Your task to perform on an android device: turn notification dots on Image 0: 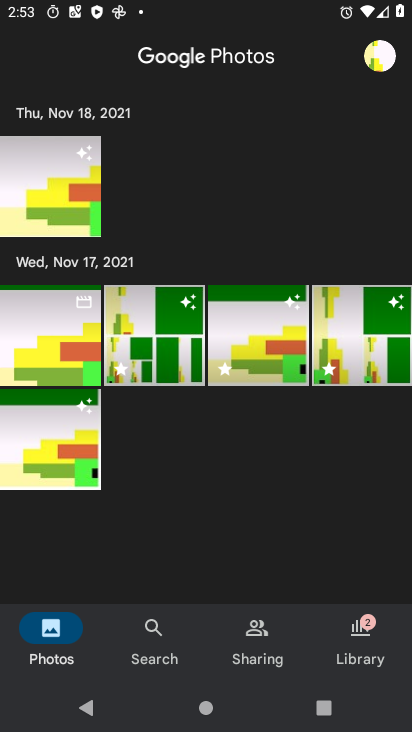
Step 0: press home button
Your task to perform on an android device: turn notification dots on Image 1: 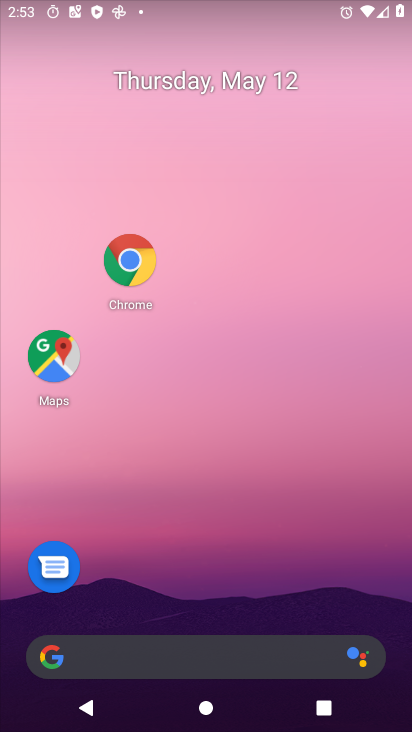
Step 1: drag from (155, 635) to (160, 202)
Your task to perform on an android device: turn notification dots on Image 2: 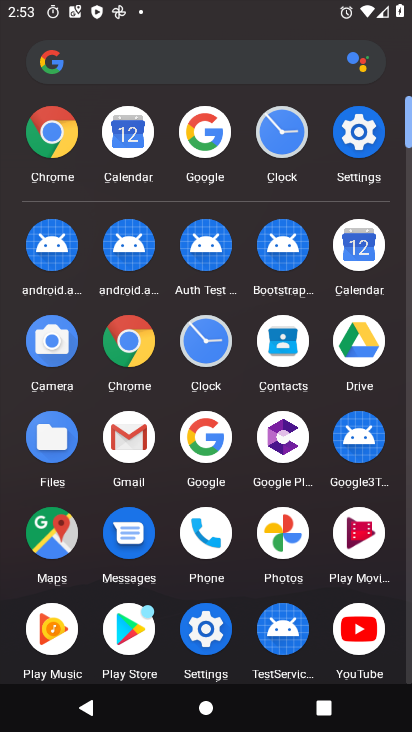
Step 2: click (359, 134)
Your task to perform on an android device: turn notification dots on Image 3: 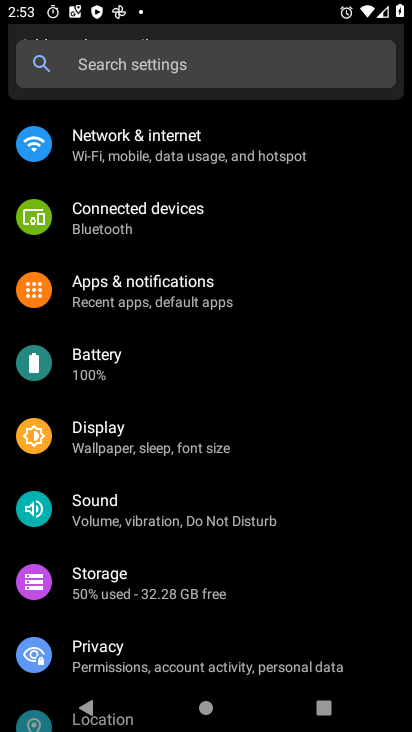
Step 3: drag from (174, 662) to (157, 416)
Your task to perform on an android device: turn notification dots on Image 4: 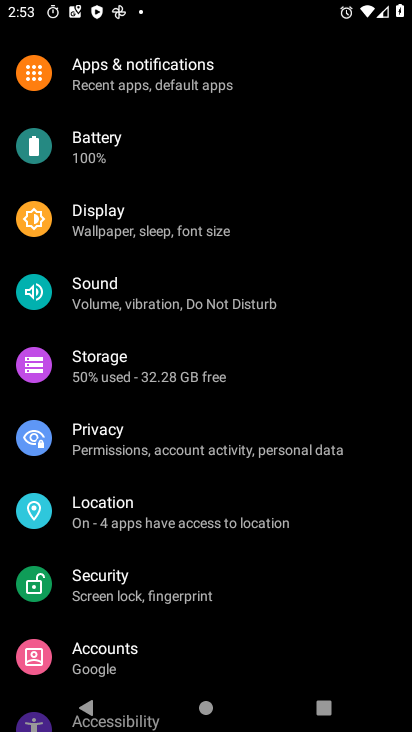
Step 4: click (160, 91)
Your task to perform on an android device: turn notification dots on Image 5: 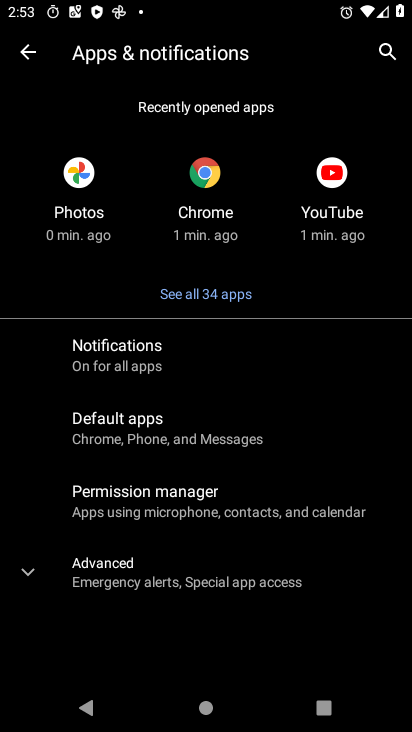
Step 5: click (182, 583)
Your task to perform on an android device: turn notification dots on Image 6: 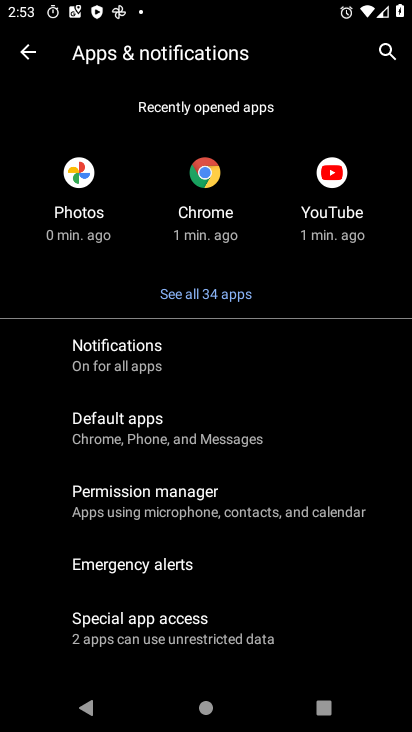
Step 6: click (126, 364)
Your task to perform on an android device: turn notification dots on Image 7: 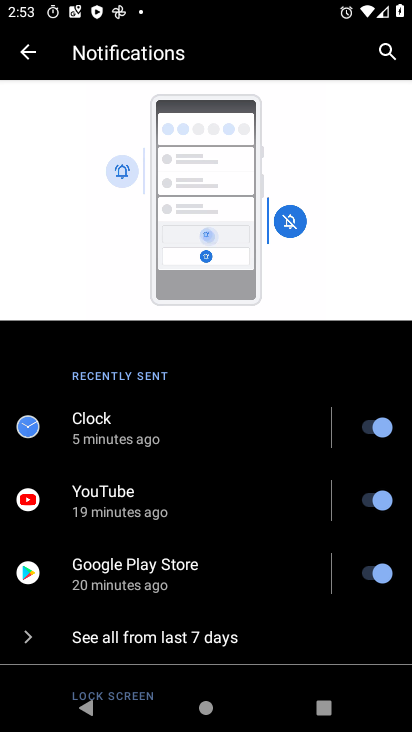
Step 7: drag from (137, 675) to (100, 359)
Your task to perform on an android device: turn notification dots on Image 8: 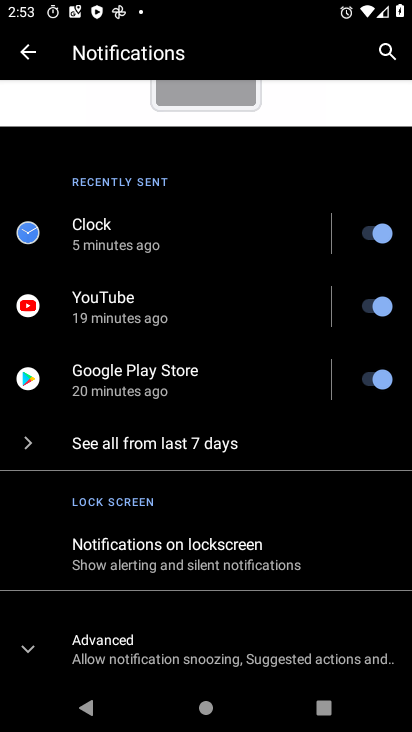
Step 8: click (130, 657)
Your task to perform on an android device: turn notification dots on Image 9: 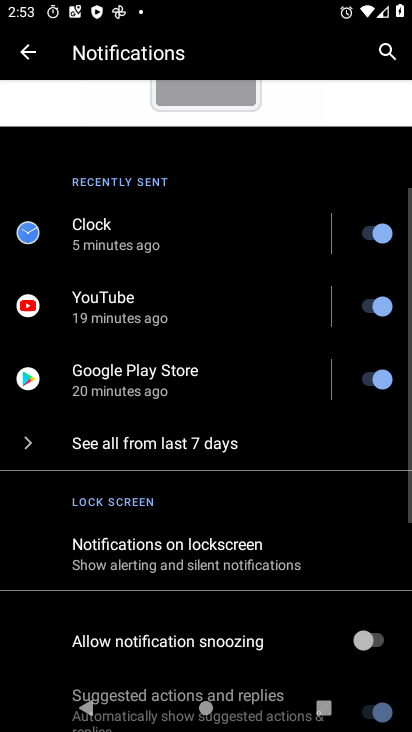
Step 9: task complete